Your task to perform on an android device: Go to Yahoo.com Image 0: 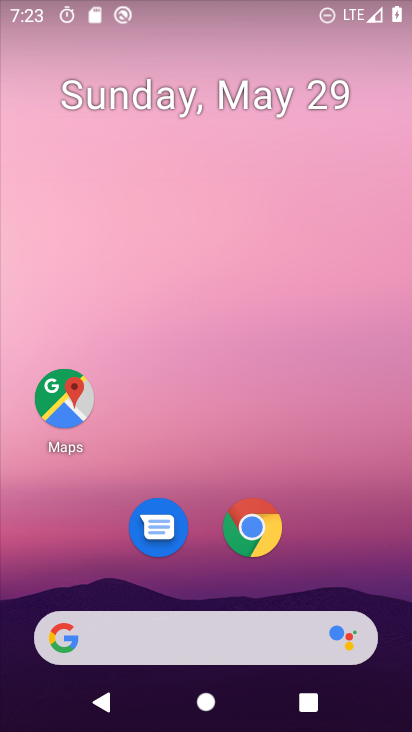
Step 0: drag from (389, 647) to (286, 11)
Your task to perform on an android device: Go to Yahoo.com Image 1: 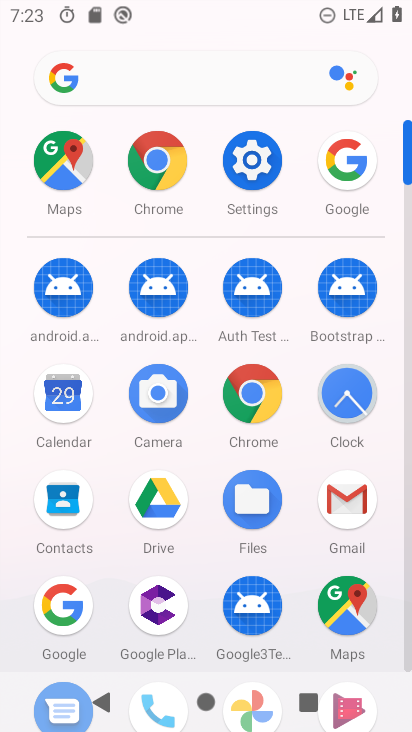
Step 1: click (53, 595)
Your task to perform on an android device: Go to Yahoo.com Image 2: 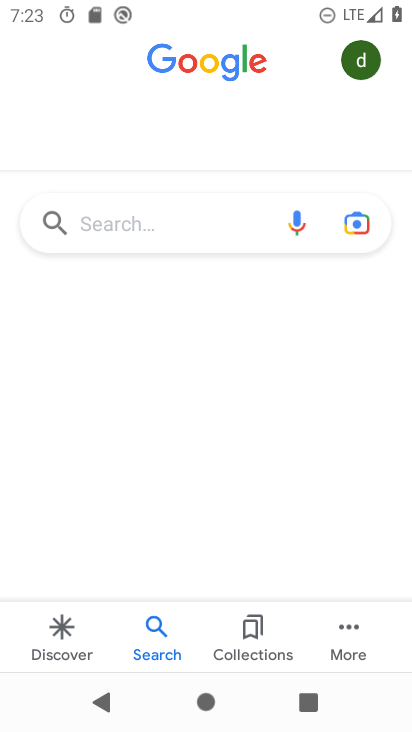
Step 2: click (166, 211)
Your task to perform on an android device: Go to Yahoo.com Image 3: 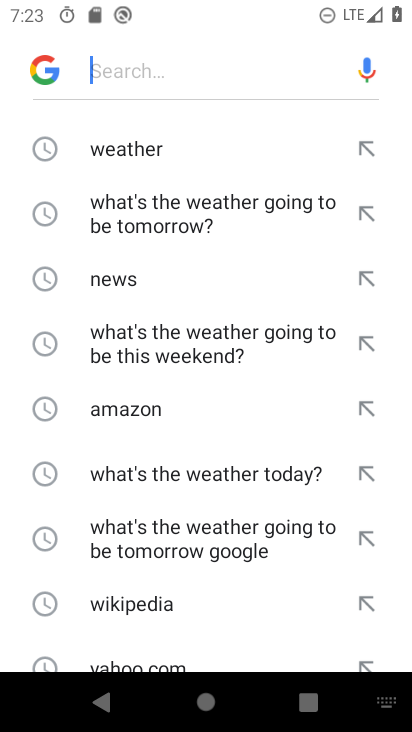
Step 3: drag from (163, 555) to (198, 180)
Your task to perform on an android device: Go to Yahoo.com Image 4: 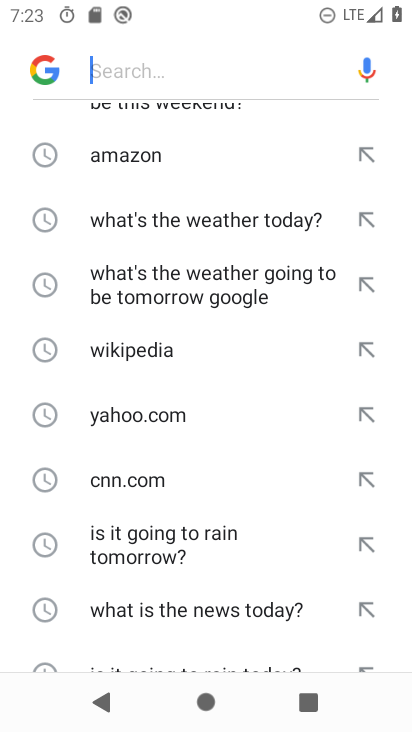
Step 4: click (115, 420)
Your task to perform on an android device: Go to Yahoo.com Image 5: 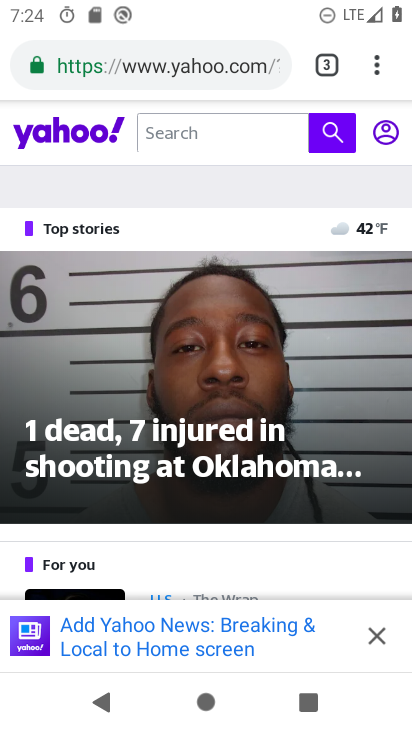
Step 5: task complete